Your task to perform on an android device: Open notification settings Image 0: 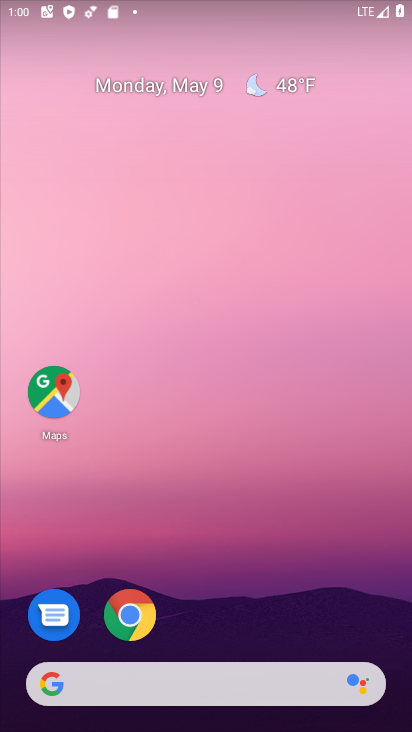
Step 0: drag from (380, 639) to (343, 113)
Your task to perform on an android device: Open notification settings Image 1: 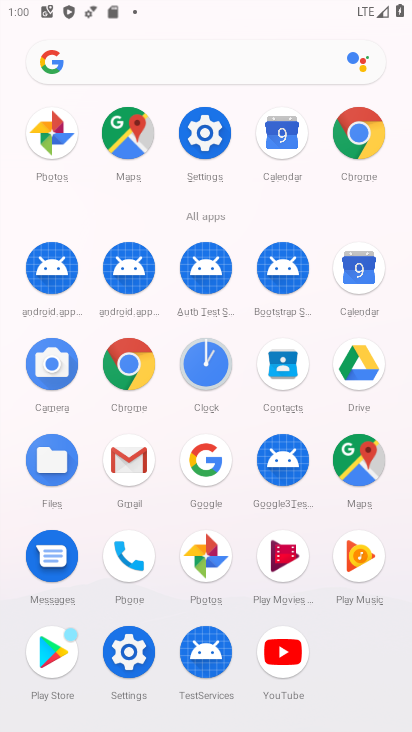
Step 1: click (127, 649)
Your task to perform on an android device: Open notification settings Image 2: 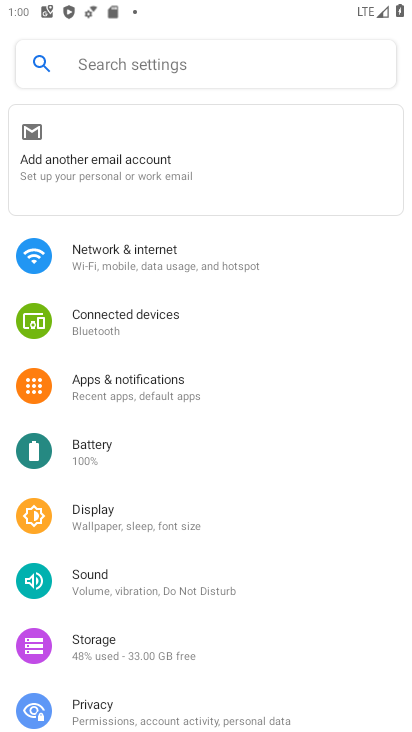
Step 2: click (122, 385)
Your task to perform on an android device: Open notification settings Image 3: 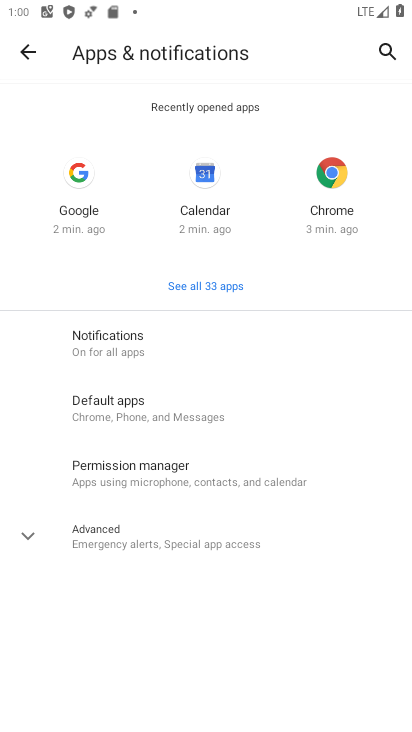
Step 3: click (106, 336)
Your task to perform on an android device: Open notification settings Image 4: 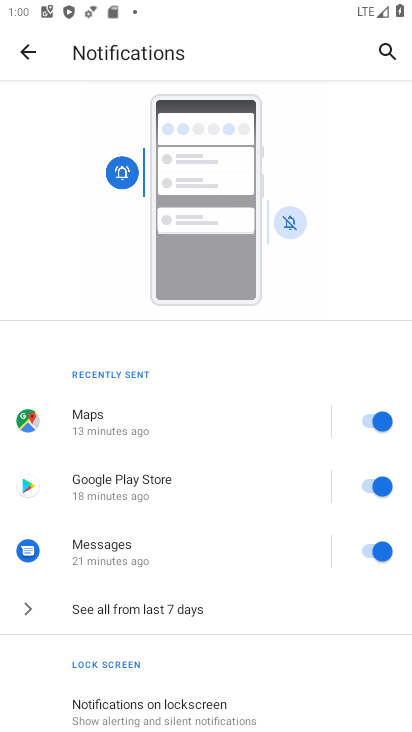
Step 4: drag from (262, 650) to (309, 96)
Your task to perform on an android device: Open notification settings Image 5: 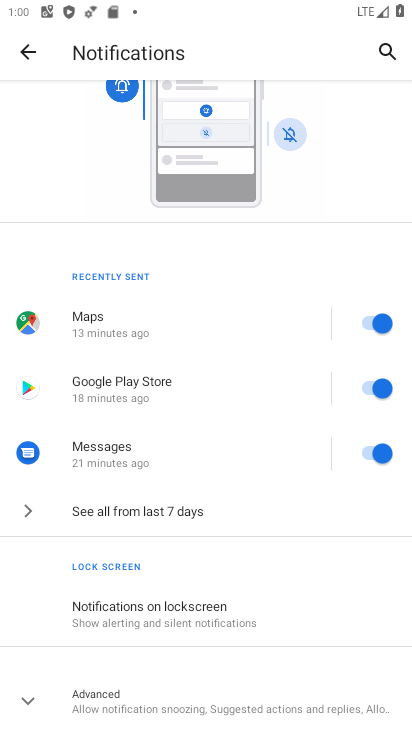
Step 5: click (31, 700)
Your task to perform on an android device: Open notification settings Image 6: 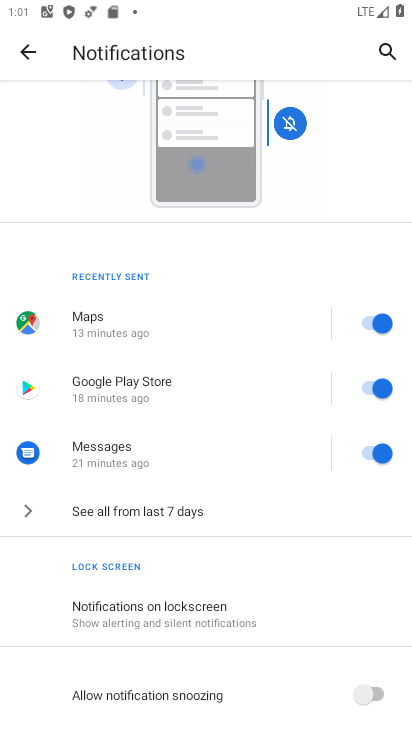
Step 6: drag from (291, 641) to (271, 164)
Your task to perform on an android device: Open notification settings Image 7: 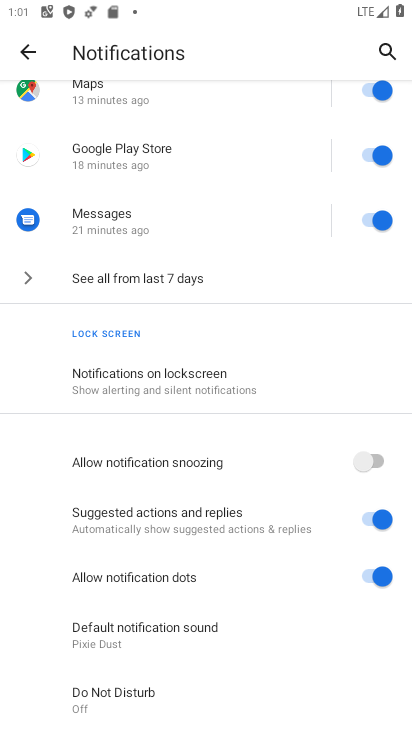
Step 7: click (366, 578)
Your task to perform on an android device: Open notification settings Image 8: 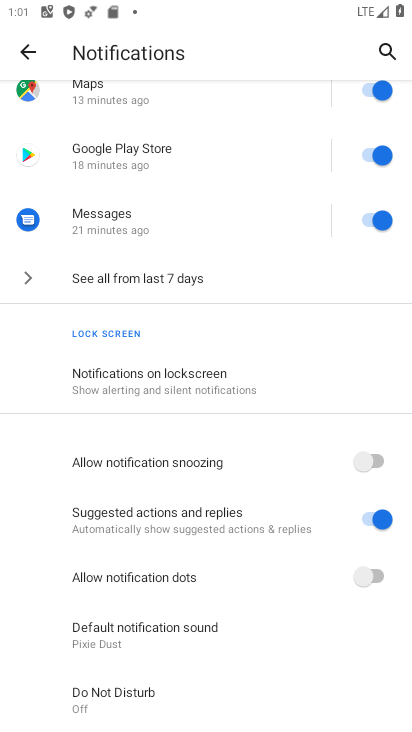
Step 8: task complete